Your task to perform on an android device: turn on notifications settings in the gmail app Image 0: 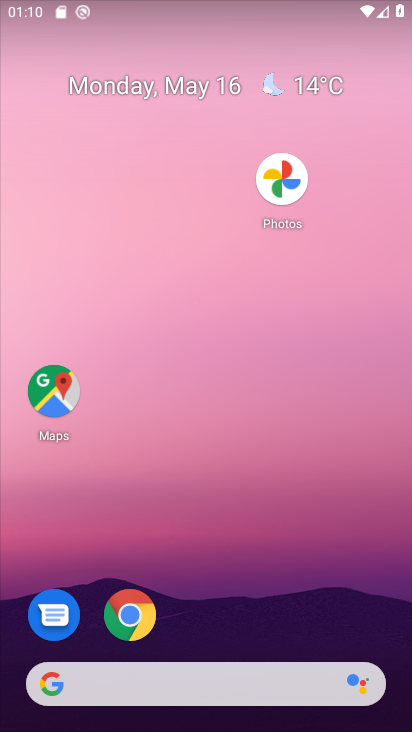
Step 0: drag from (252, 573) to (319, 185)
Your task to perform on an android device: turn on notifications settings in the gmail app Image 1: 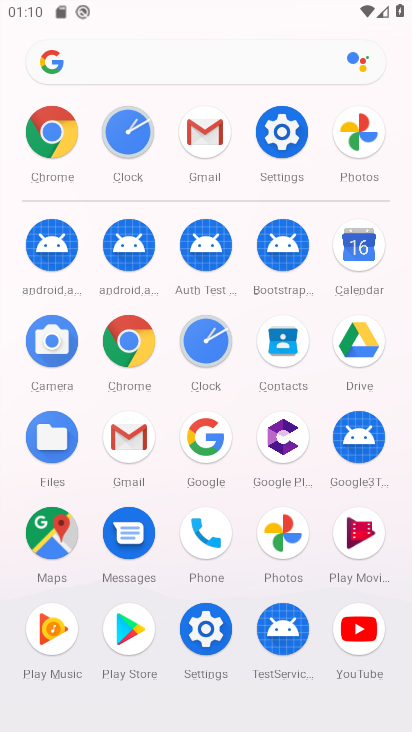
Step 1: click (139, 425)
Your task to perform on an android device: turn on notifications settings in the gmail app Image 2: 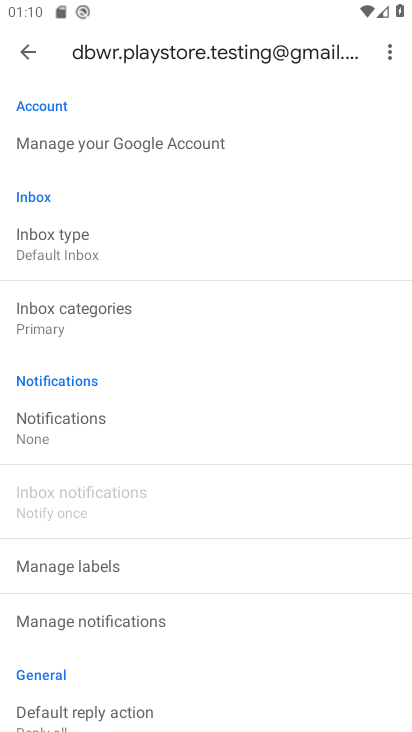
Step 2: click (88, 425)
Your task to perform on an android device: turn on notifications settings in the gmail app Image 3: 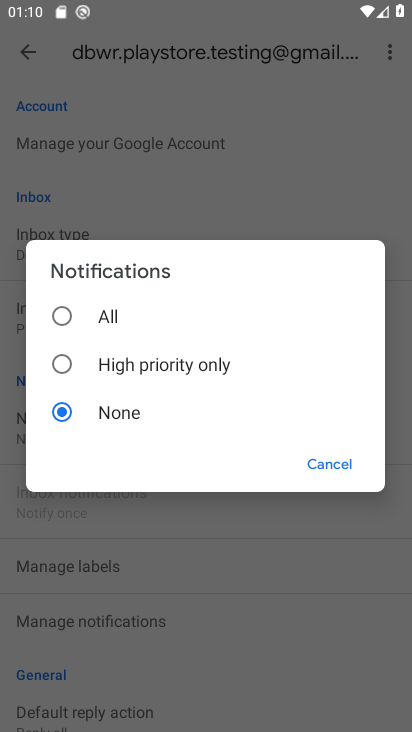
Step 3: click (107, 311)
Your task to perform on an android device: turn on notifications settings in the gmail app Image 4: 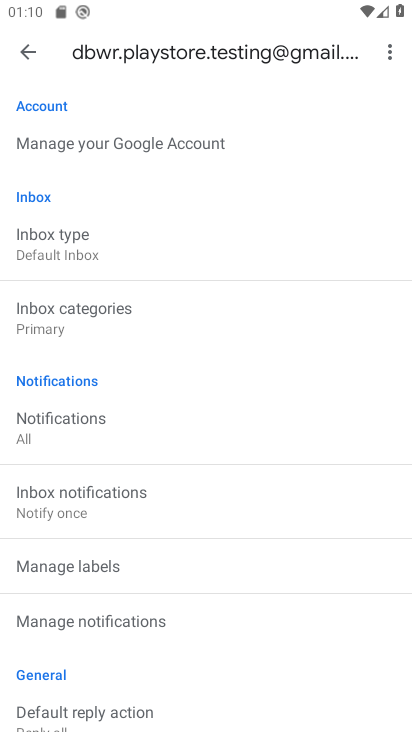
Step 4: task complete